Your task to perform on an android device: add a label to a message in the gmail app Image 0: 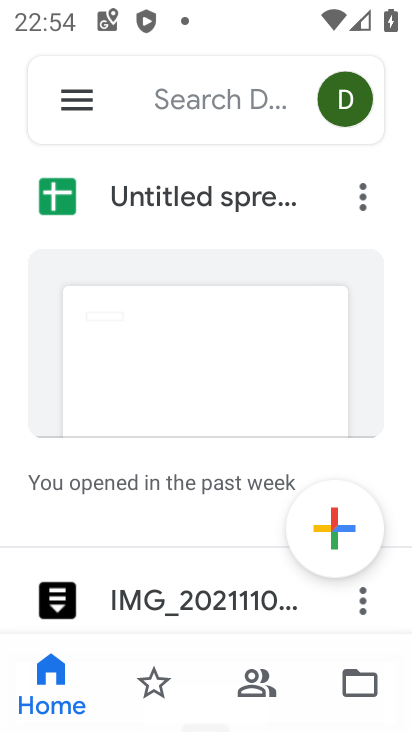
Step 0: press home button
Your task to perform on an android device: add a label to a message in the gmail app Image 1: 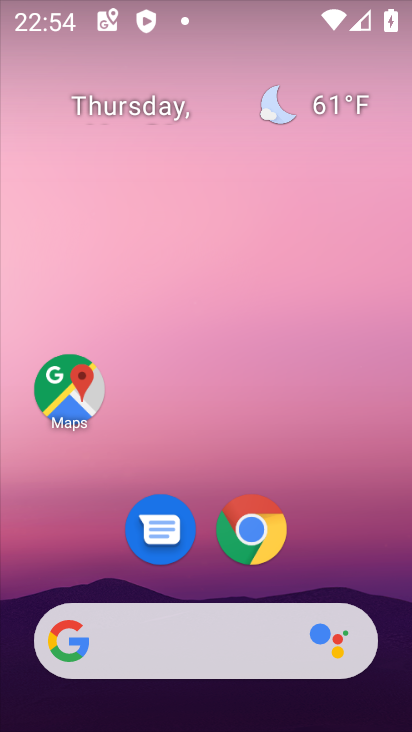
Step 1: drag from (369, 532) to (258, 84)
Your task to perform on an android device: add a label to a message in the gmail app Image 2: 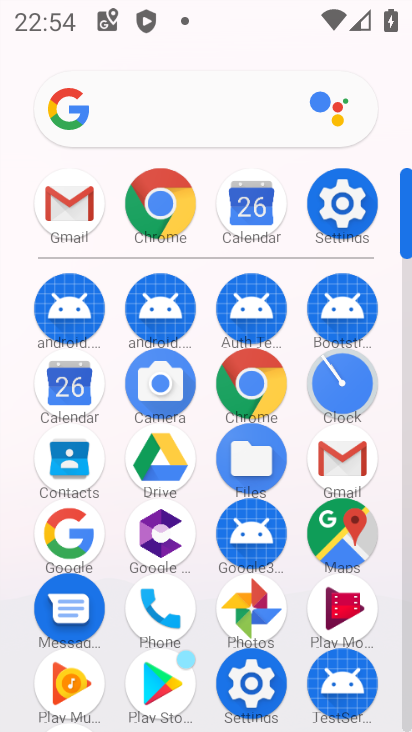
Step 2: click (56, 213)
Your task to perform on an android device: add a label to a message in the gmail app Image 3: 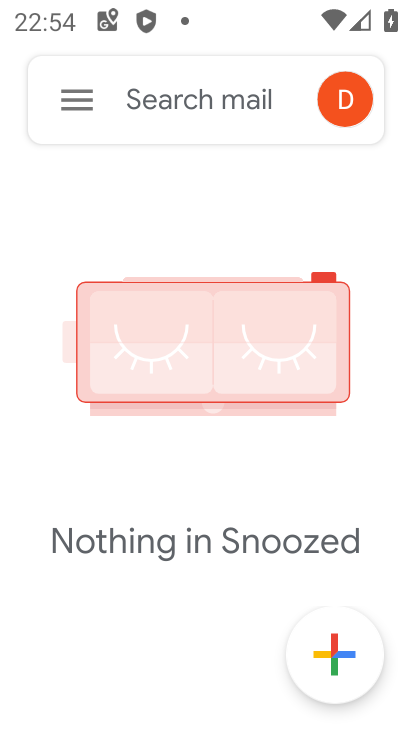
Step 3: click (74, 105)
Your task to perform on an android device: add a label to a message in the gmail app Image 4: 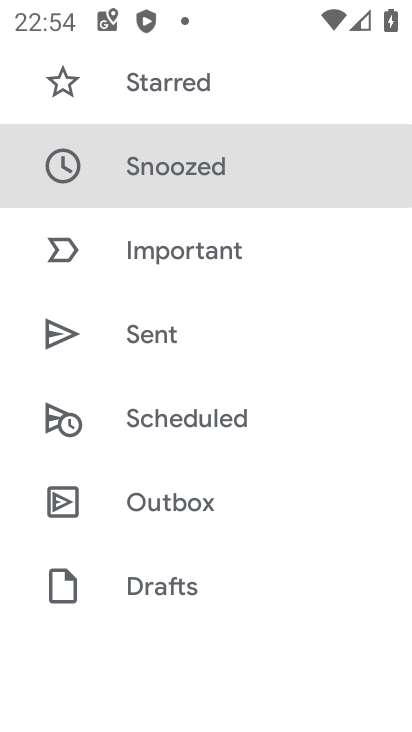
Step 4: drag from (156, 598) to (150, 287)
Your task to perform on an android device: add a label to a message in the gmail app Image 5: 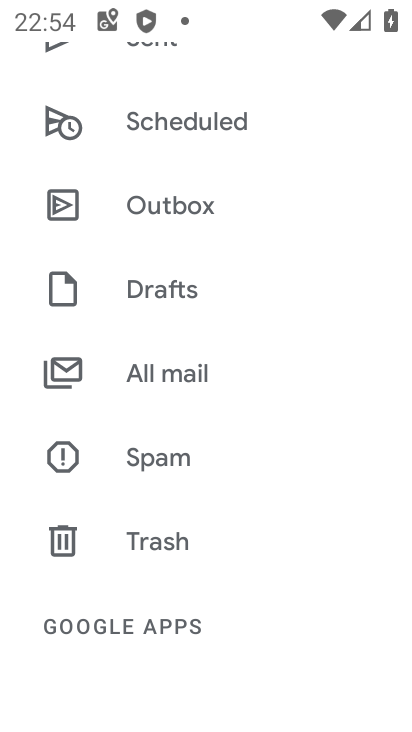
Step 5: drag from (182, 619) to (168, 349)
Your task to perform on an android device: add a label to a message in the gmail app Image 6: 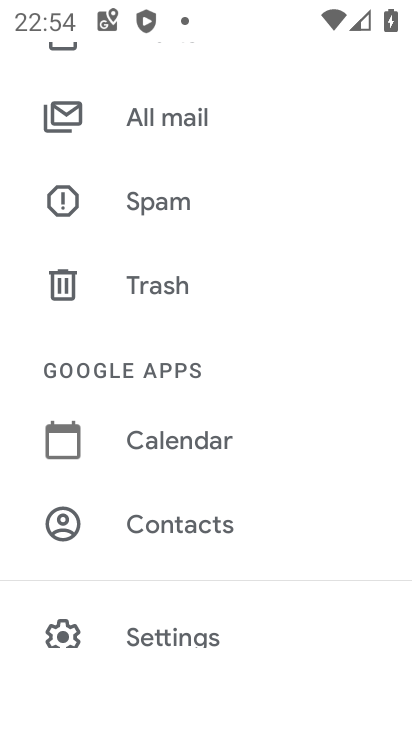
Step 6: drag from (194, 522) to (208, 308)
Your task to perform on an android device: add a label to a message in the gmail app Image 7: 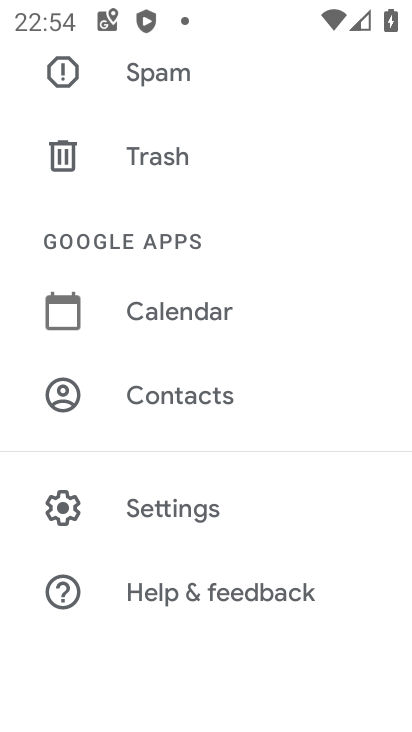
Step 7: click (229, 496)
Your task to perform on an android device: add a label to a message in the gmail app Image 8: 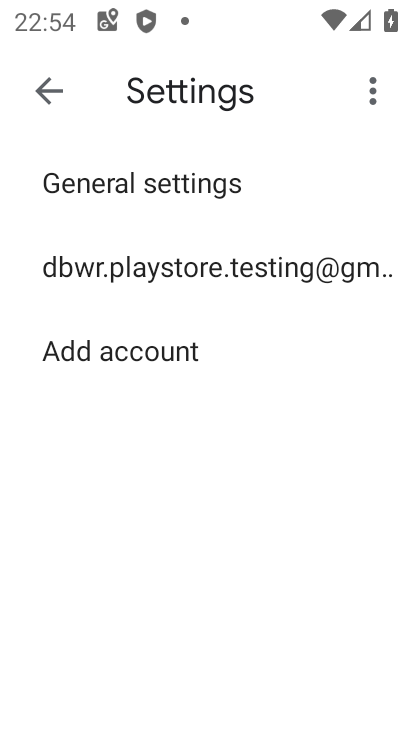
Step 8: click (30, 84)
Your task to perform on an android device: add a label to a message in the gmail app Image 9: 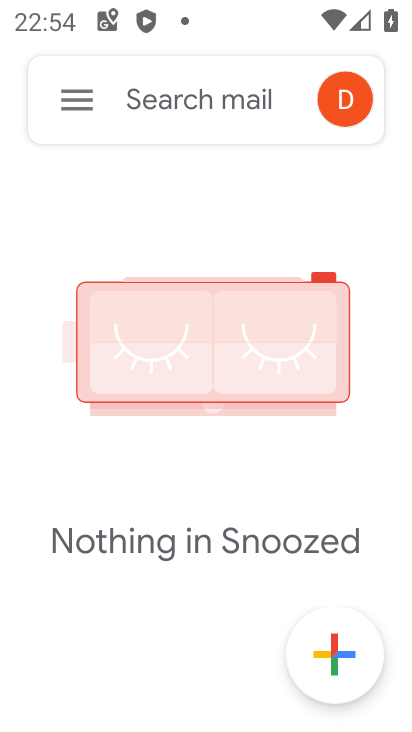
Step 9: click (53, 92)
Your task to perform on an android device: add a label to a message in the gmail app Image 10: 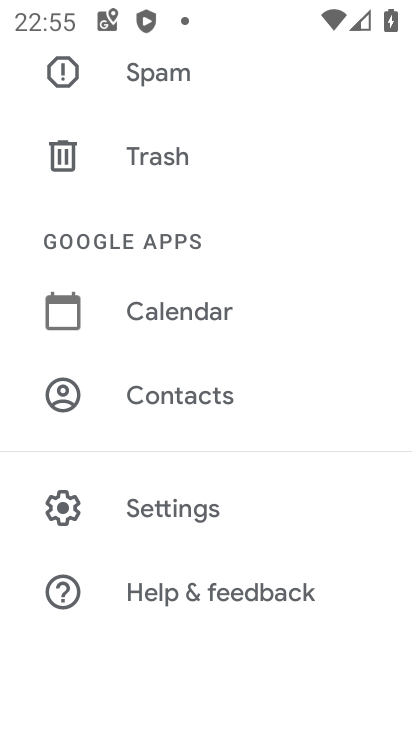
Step 10: task complete